Your task to perform on an android device: allow cookies in the chrome app Image 0: 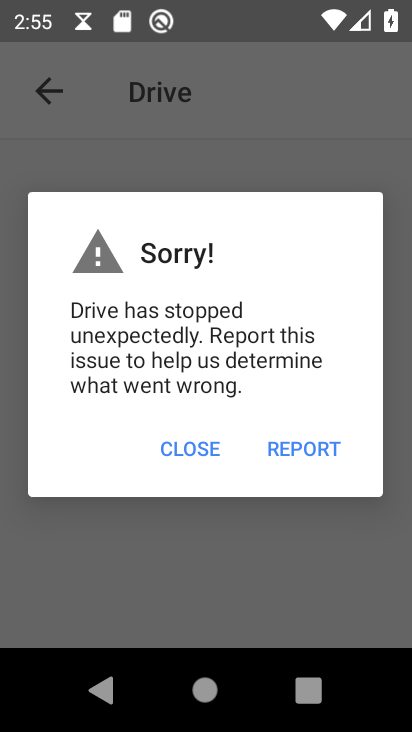
Step 0: press home button
Your task to perform on an android device: allow cookies in the chrome app Image 1: 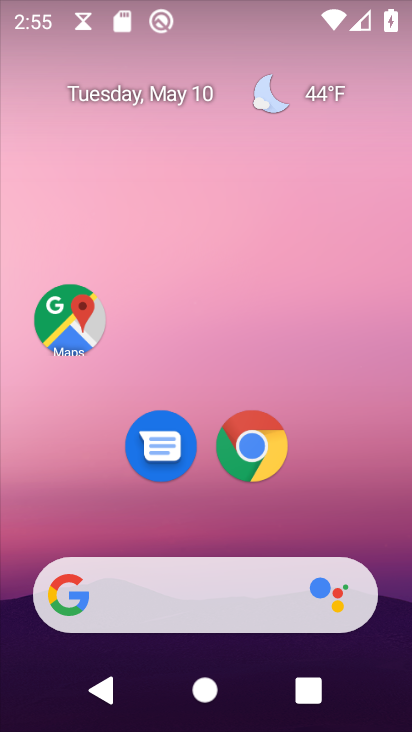
Step 1: drag from (341, 527) to (329, 40)
Your task to perform on an android device: allow cookies in the chrome app Image 2: 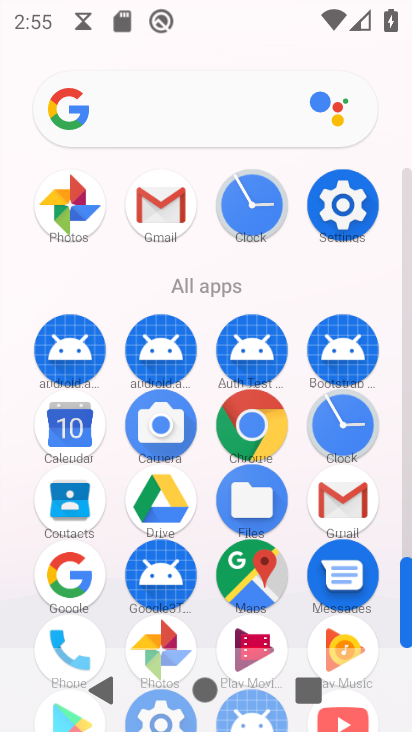
Step 2: click (262, 443)
Your task to perform on an android device: allow cookies in the chrome app Image 3: 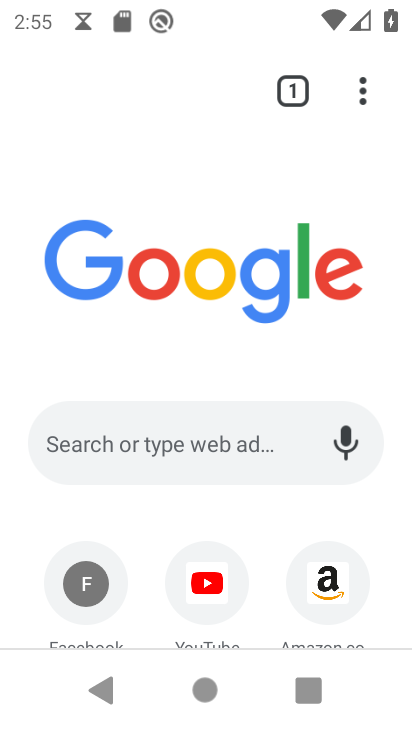
Step 3: drag from (360, 84) to (92, 481)
Your task to perform on an android device: allow cookies in the chrome app Image 4: 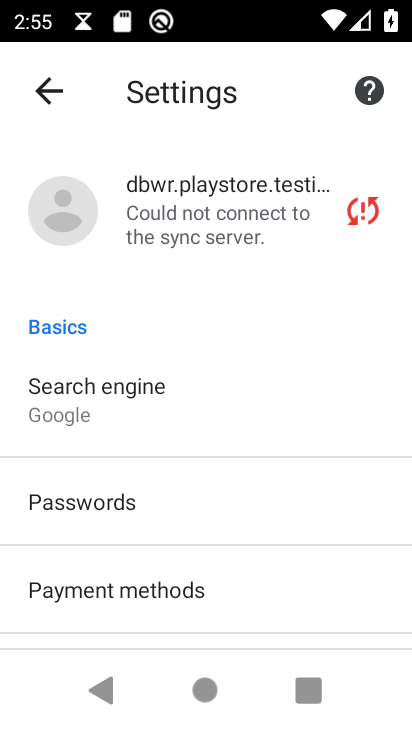
Step 4: drag from (188, 586) to (248, 209)
Your task to perform on an android device: allow cookies in the chrome app Image 5: 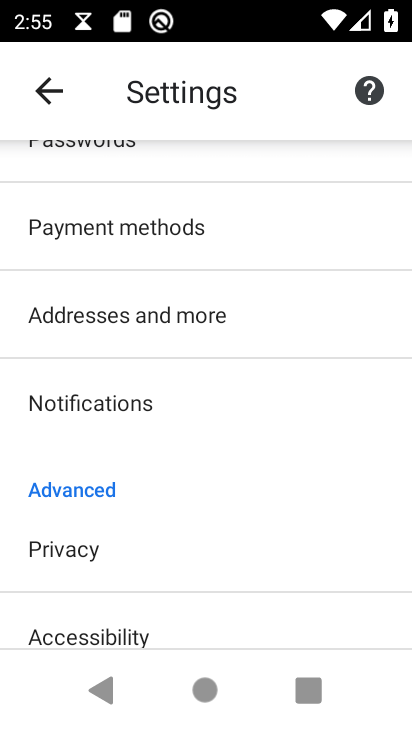
Step 5: drag from (190, 622) to (254, 310)
Your task to perform on an android device: allow cookies in the chrome app Image 6: 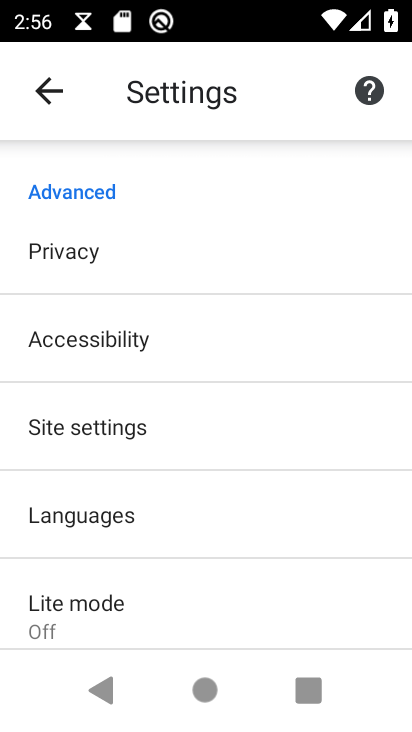
Step 6: click (160, 430)
Your task to perform on an android device: allow cookies in the chrome app Image 7: 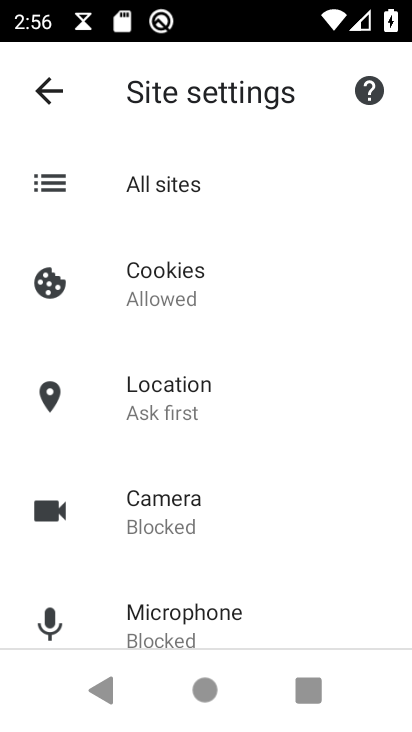
Step 7: drag from (207, 681) to (255, 288)
Your task to perform on an android device: allow cookies in the chrome app Image 8: 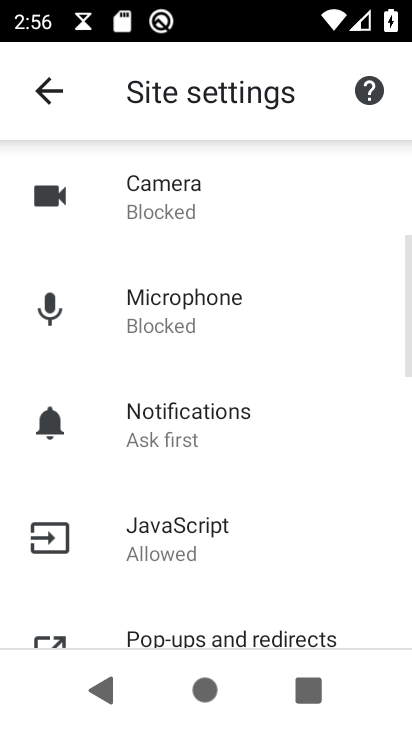
Step 8: drag from (255, 288) to (207, 641)
Your task to perform on an android device: allow cookies in the chrome app Image 9: 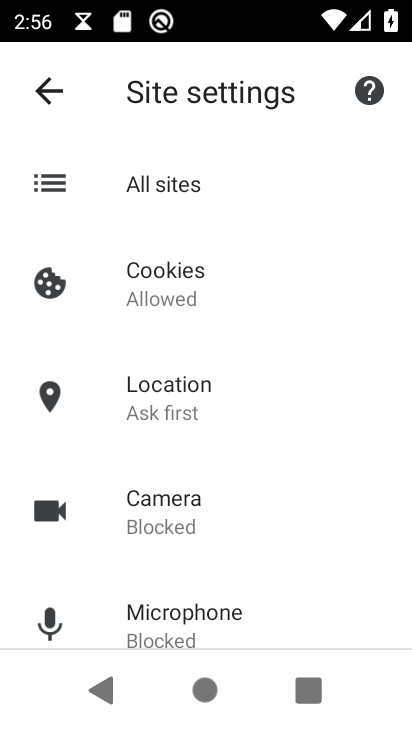
Step 9: drag from (248, 278) to (199, 548)
Your task to perform on an android device: allow cookies in the chrome app Image 10: 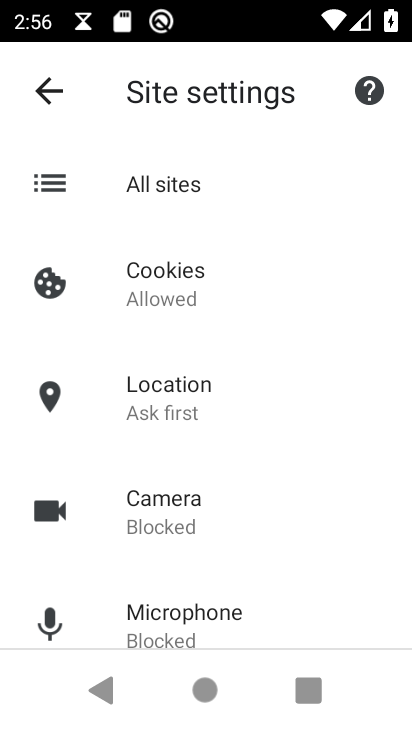
Step 10: click (168, 308)
Your task to perform on an android device: allow cookies in the chrome app Image 11: 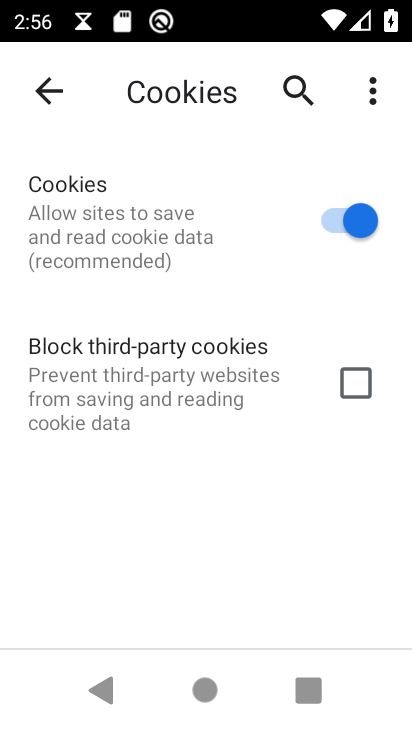
Step 11: task complete